Your task to perform on an android device: Open calendar and show me the second week of next month Image 0: 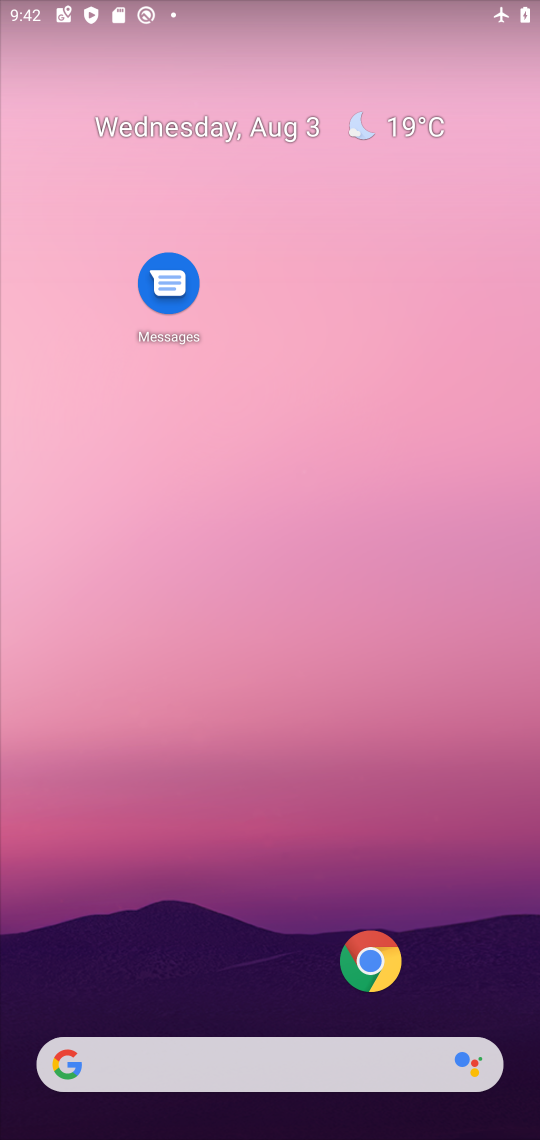
Step 0: drag from (298, 1029) to (107, 22)
Your task to perform on an android device: Open calendar and show me the second week of next month Image 1: 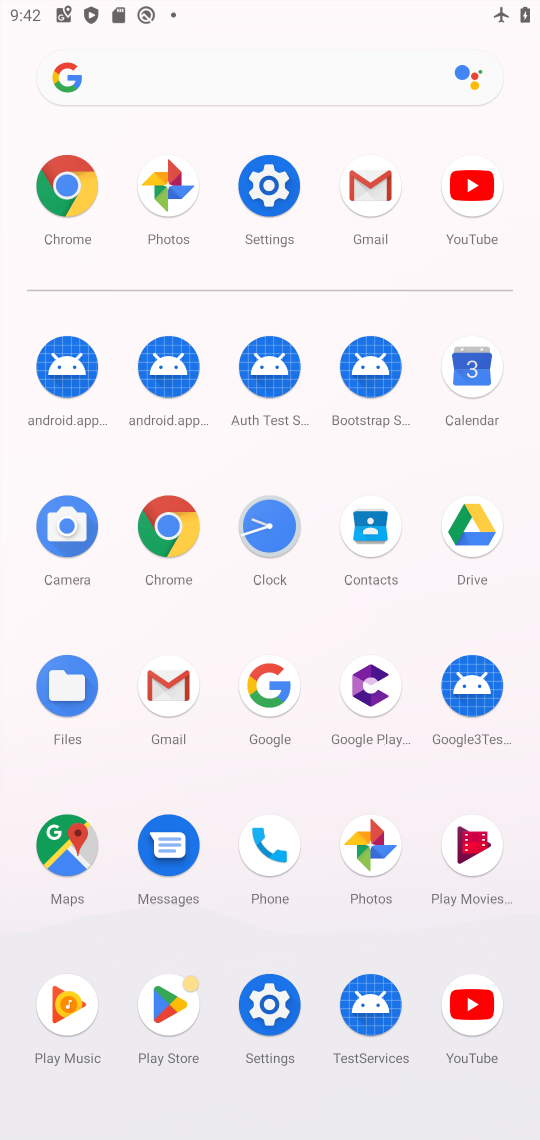
Step 1: click (475, 377)
Your task to perform on an android device: Open calendar and show me the second week of next month Image 2: 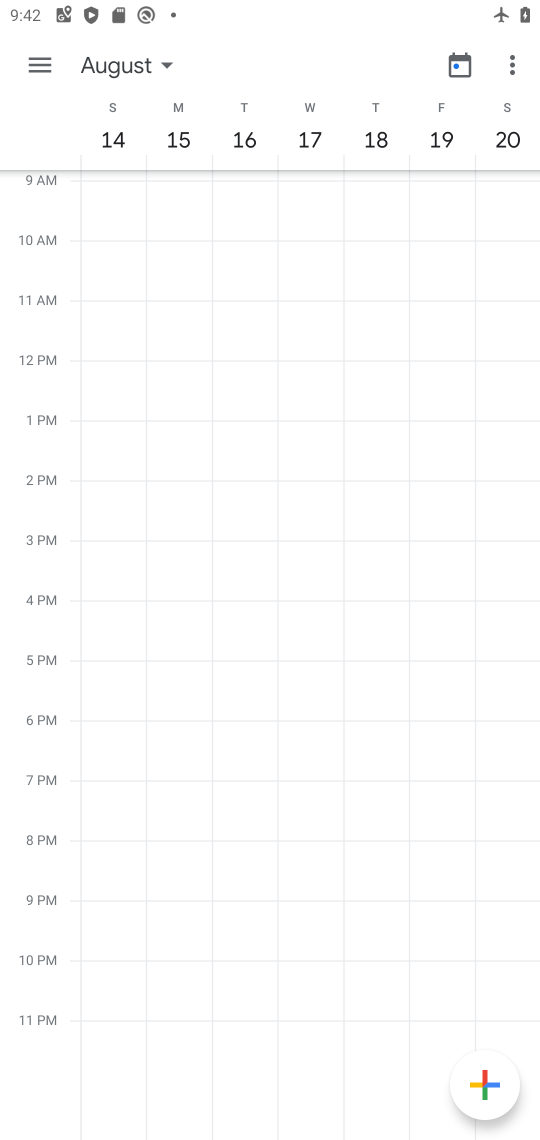
Step 2: task complete